Your task to perform on an android device: Look up the best rated pressure washer on Home Depot. Image 0: 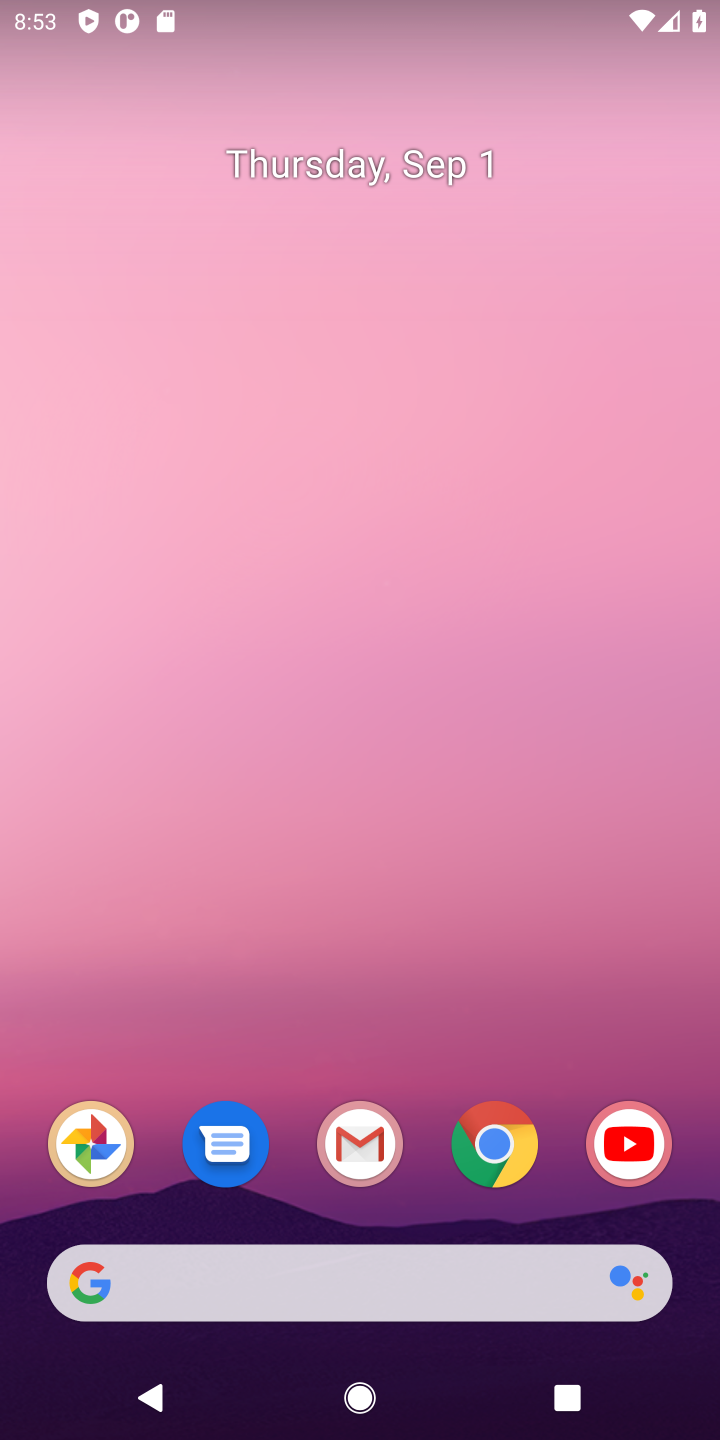
Step 0: press home button
Your task to perform on an android device: Look up the best rated pressure washer on Home Depot. Image 1: 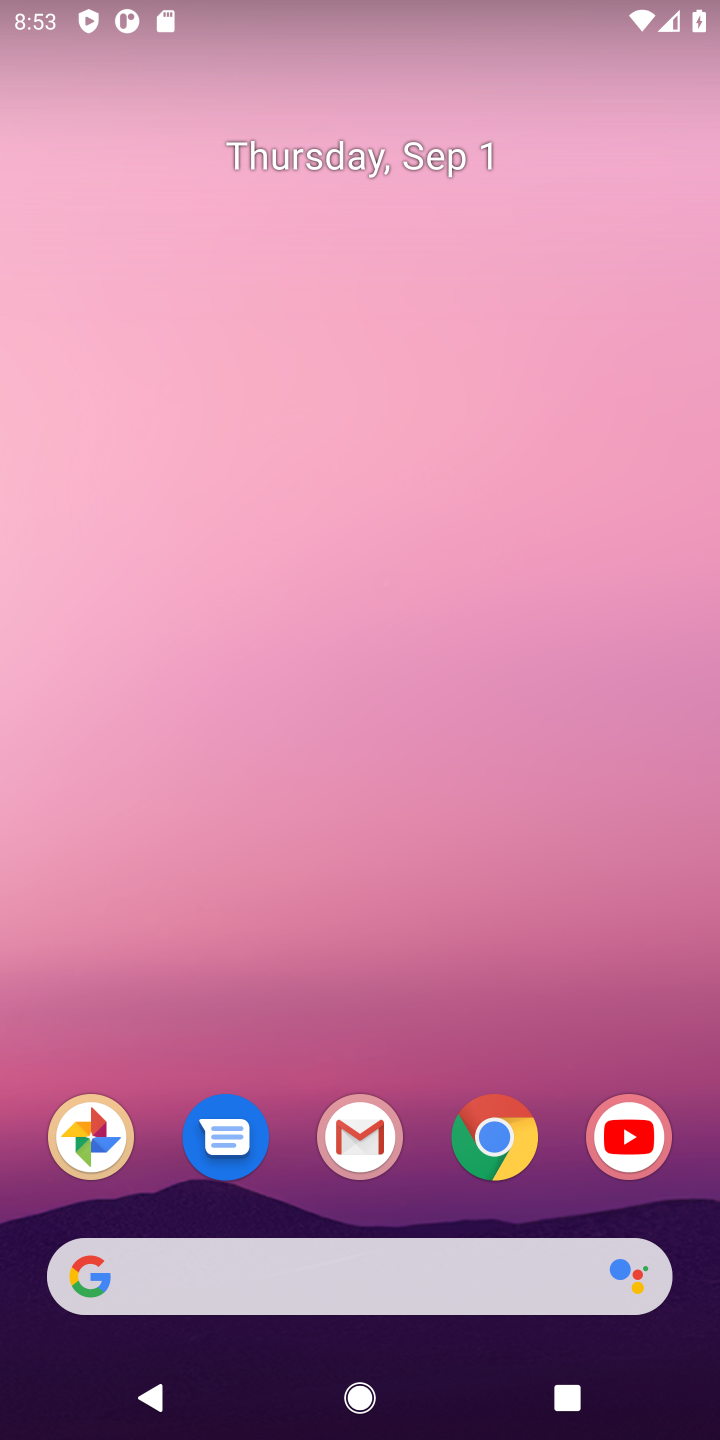
Step 1: drag from (431, 1104) to (463, 102)
Your task to perform on an android device: Look up the best rated pressure washer on Home Depot. Image 2: 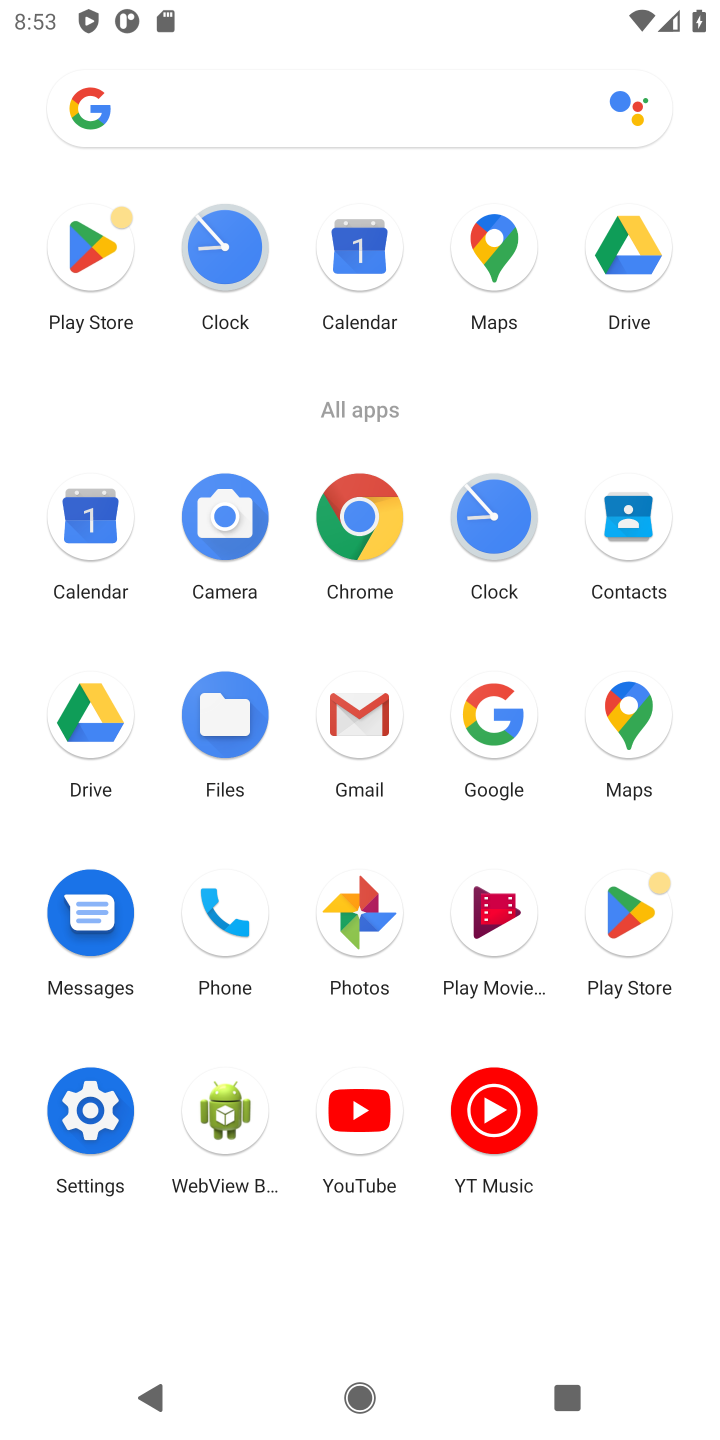
Step 2: click (346, 515)
Your task to perform on an android device: Look up the best rated pressure washer on Home Depot. Image 3: 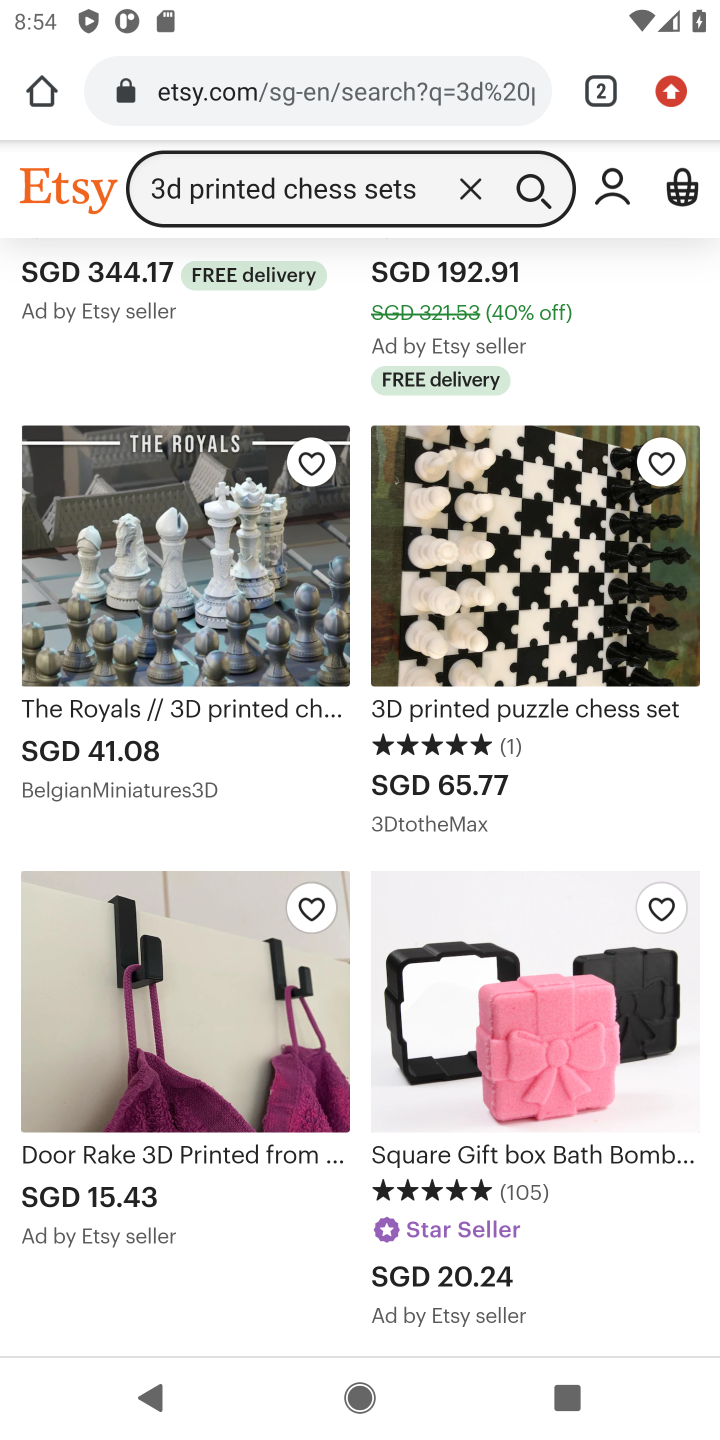
Step 3: click (331, 79)
Your task to perform on an android device: Look up the best rated pressure washer on Home Depot. Image 4: 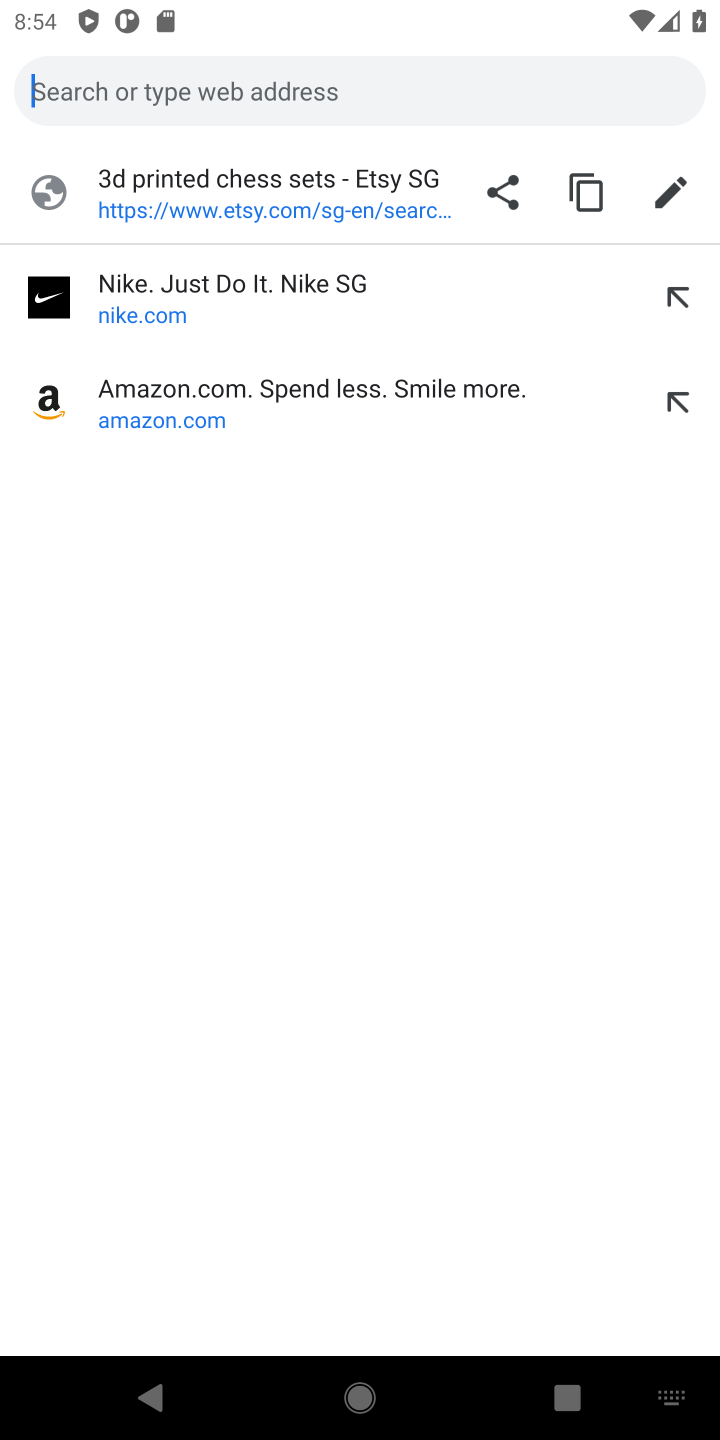
Step 4: click (322, 76)
Your task to perform on an android device: Look up the best rated pressure washer on Home Depot. Image 5: 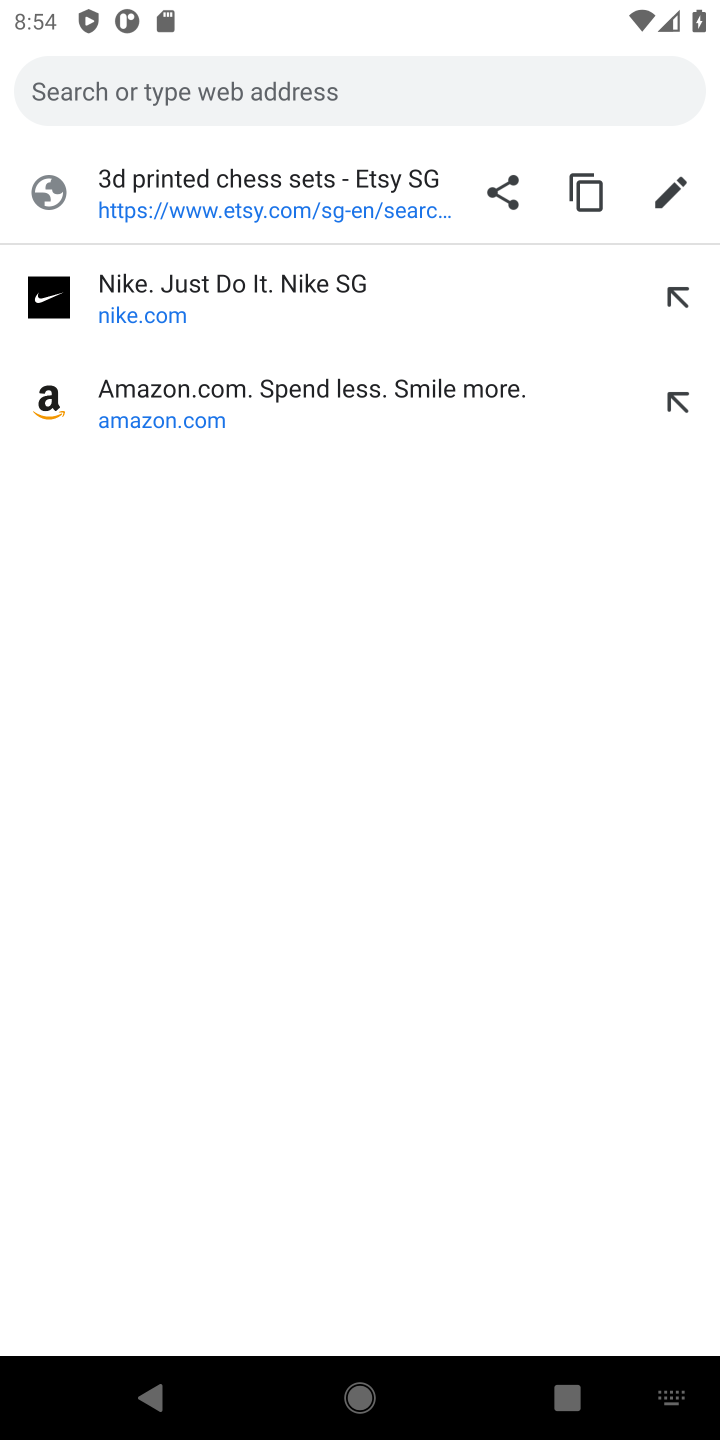
Step 5: type "Home Depot"
Your task to perform on an android device: Look up the best rated pressure washer on Home Depot. Image 6: 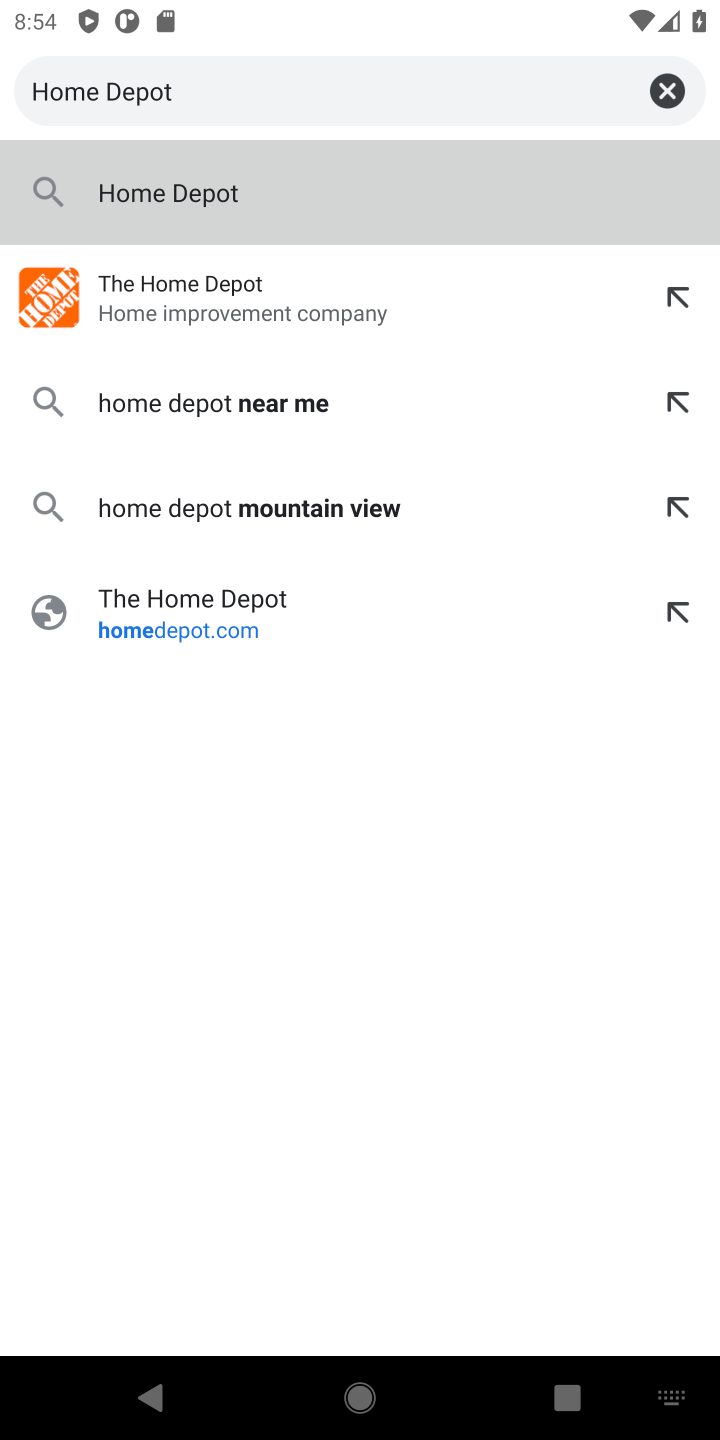
Step 6: type ""
Your task to perform on an android device: Look up the best rated pressure washer on Home Depot. Image 7: 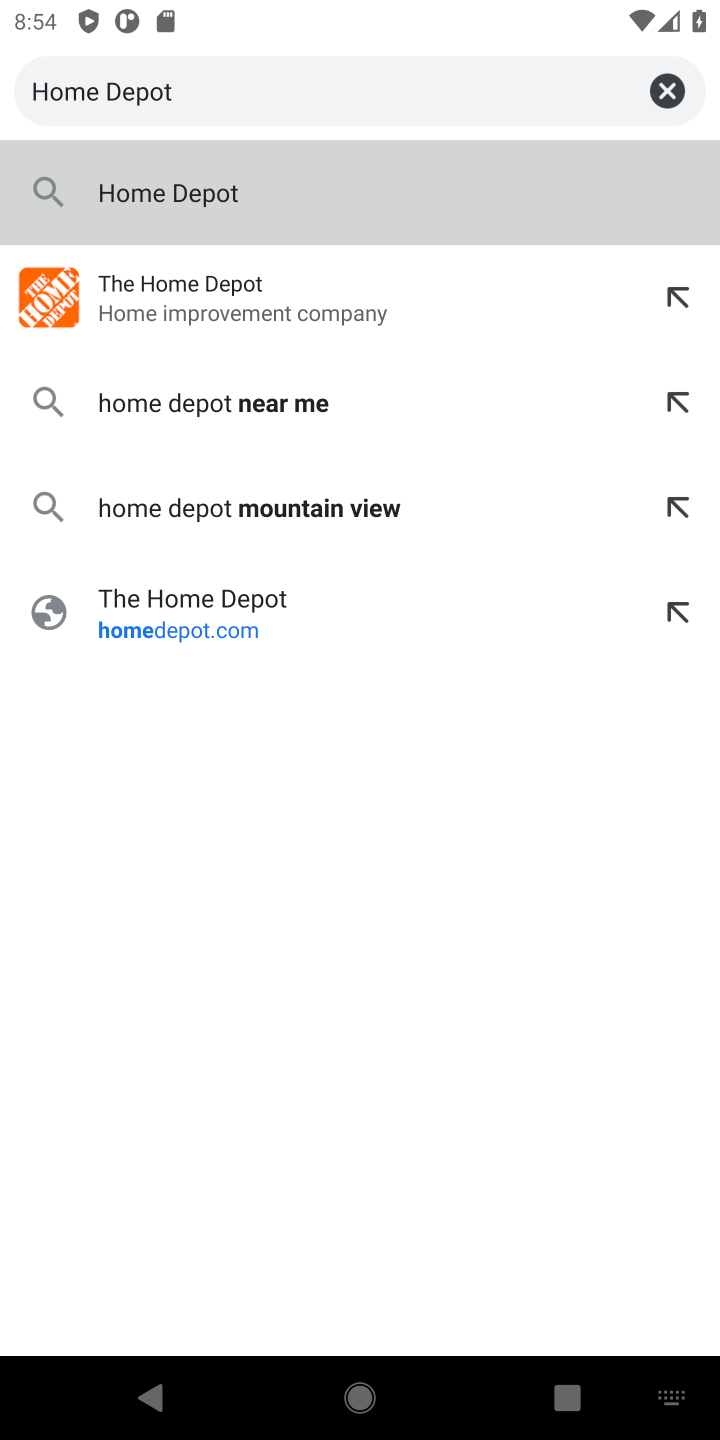
Step 7: click (390, 287)
Your task to perform on an android device: Look up the best rated pressure washer on Home Depot. Image 8: 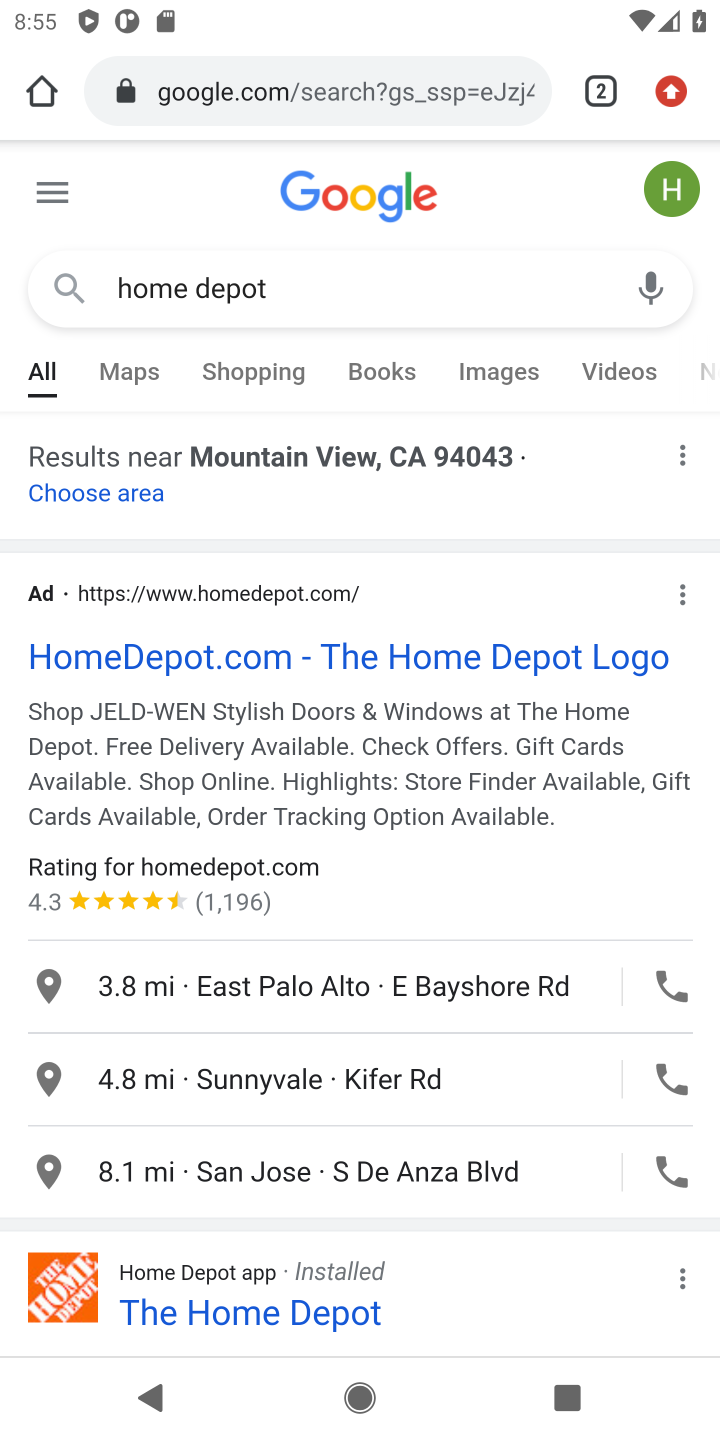
Step 8: click (167, 648)
Your task to perform on an android device: Look up the best rated pressure washer on Home Depot. Image 9: 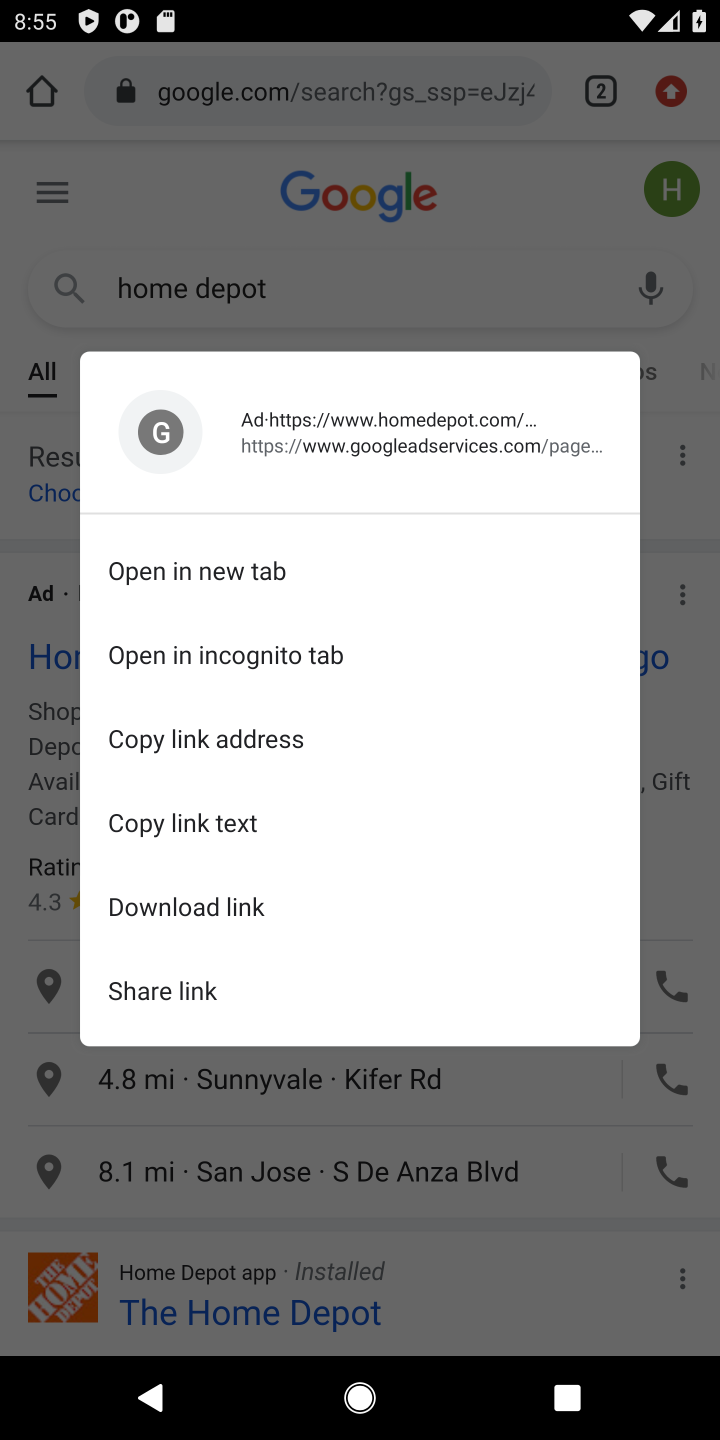
Step 9: click (146, 272)
Your task to perform on an android device: Look up the best rated pressure washer on Home Depot. Image 10: 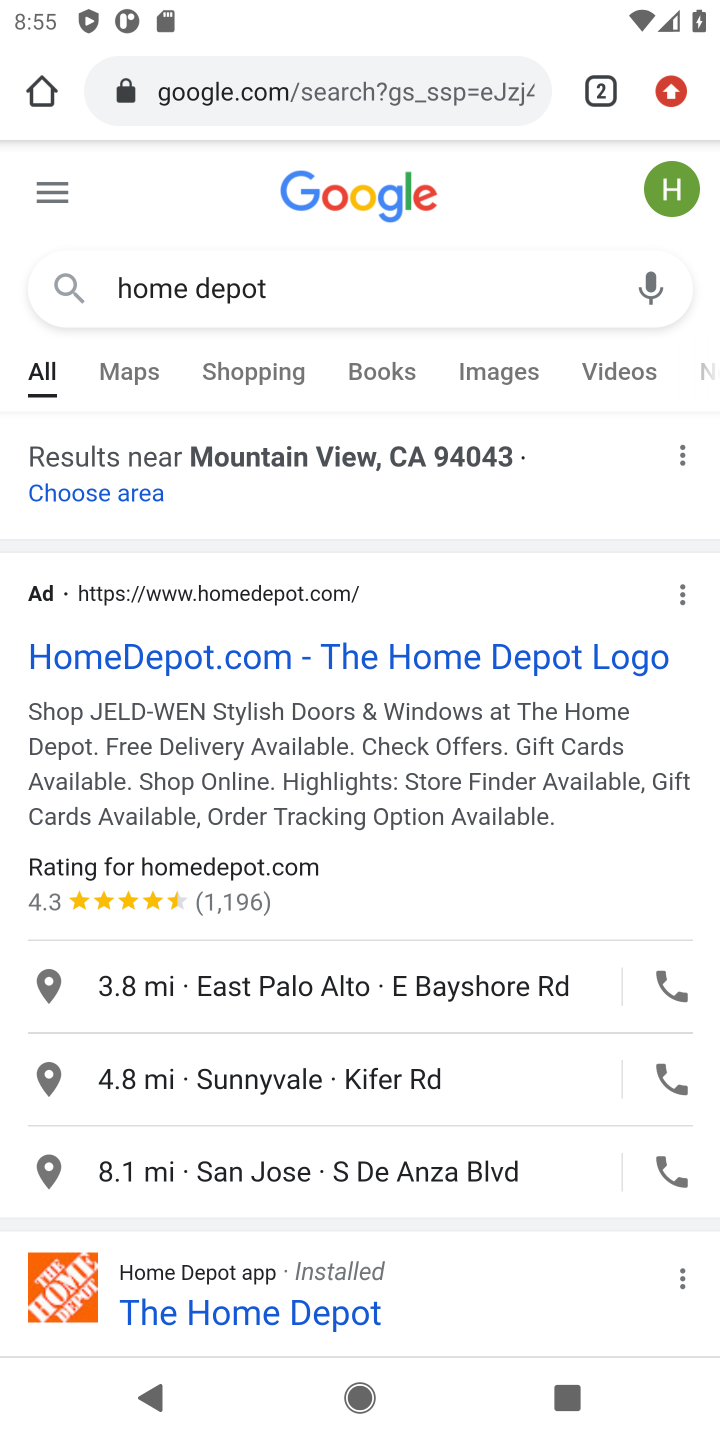
Step 10: click (212, 662)
Your task to perform on an android device: Look up the best rated pressure washer on Home Depot. Image 11: 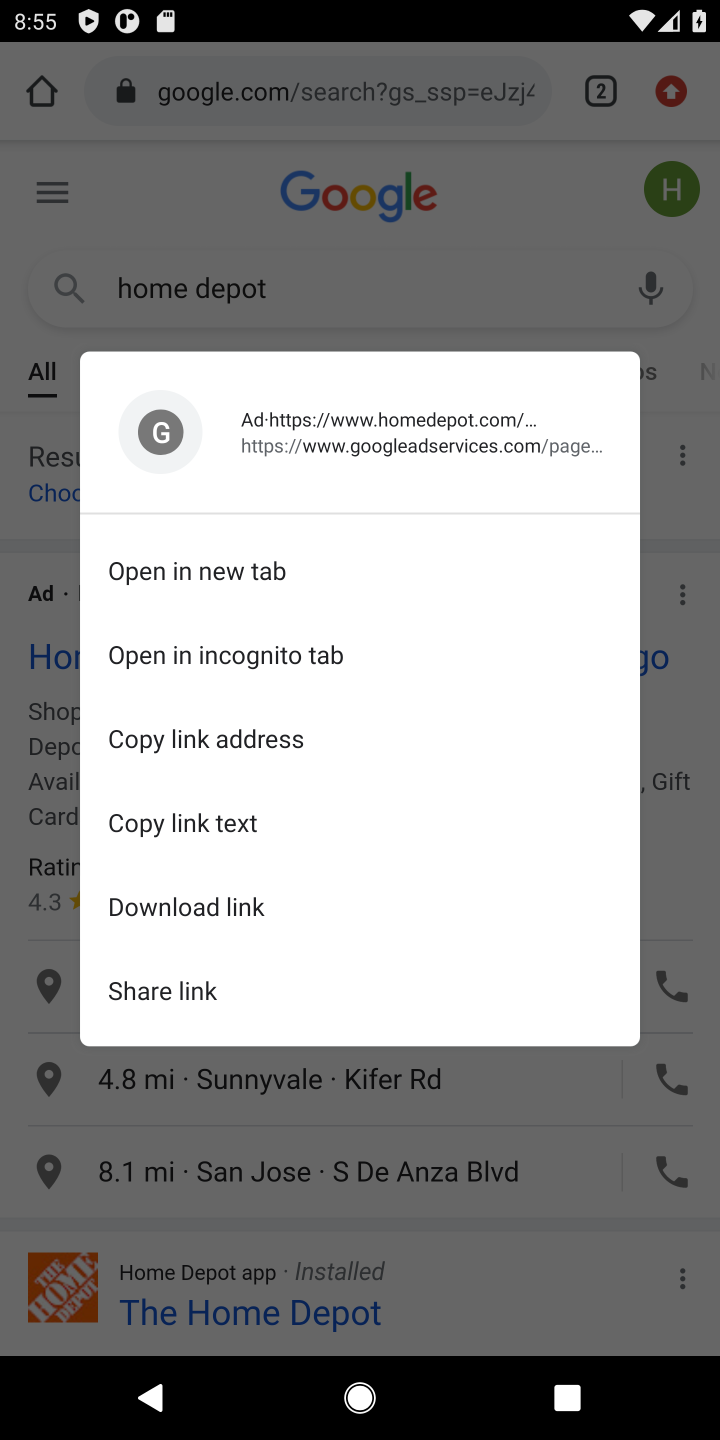
Step 11: click (42, 856)
Your task to perform on an android device: Look up the best rated pressure washer on Home Depot. Image 12: 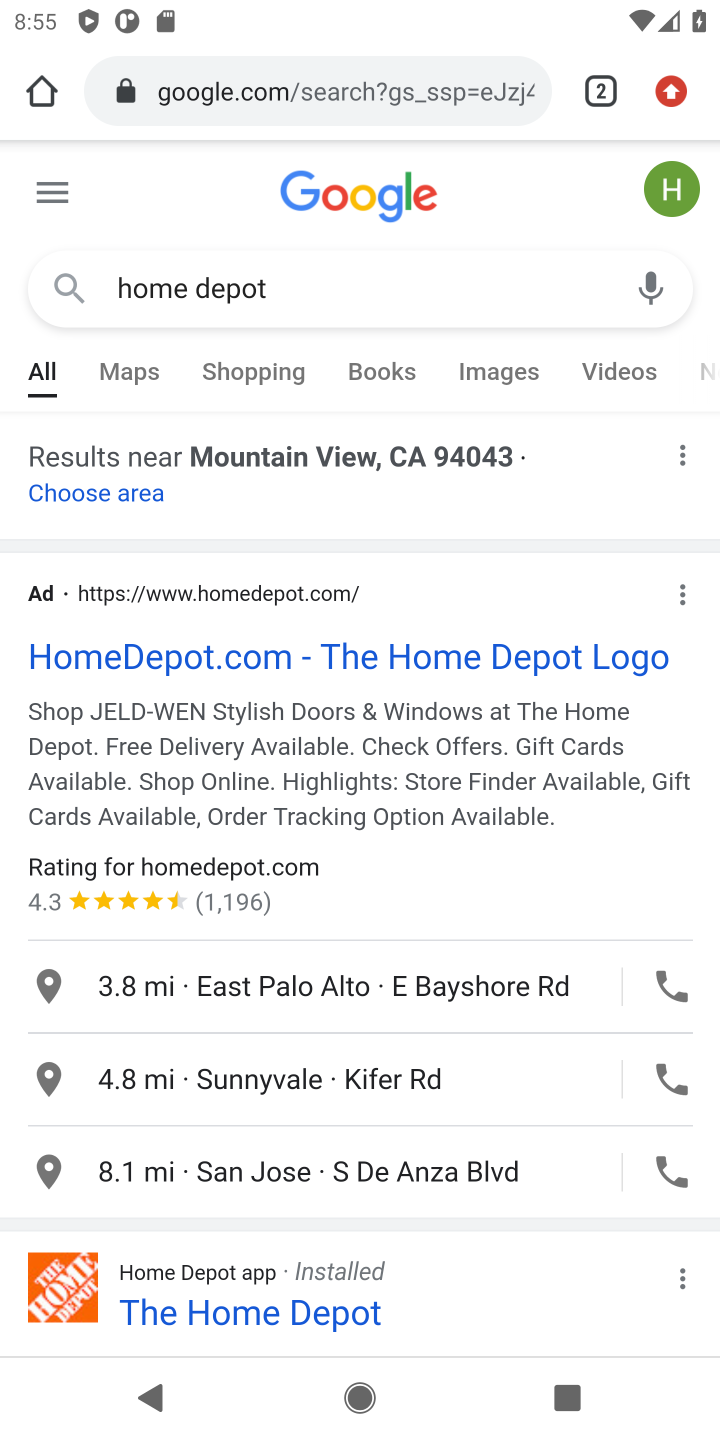
Step 12: click (527, 658)
Your task to perform on an android device: Look up the best rated pressure washer on Home Depot. Image 13: 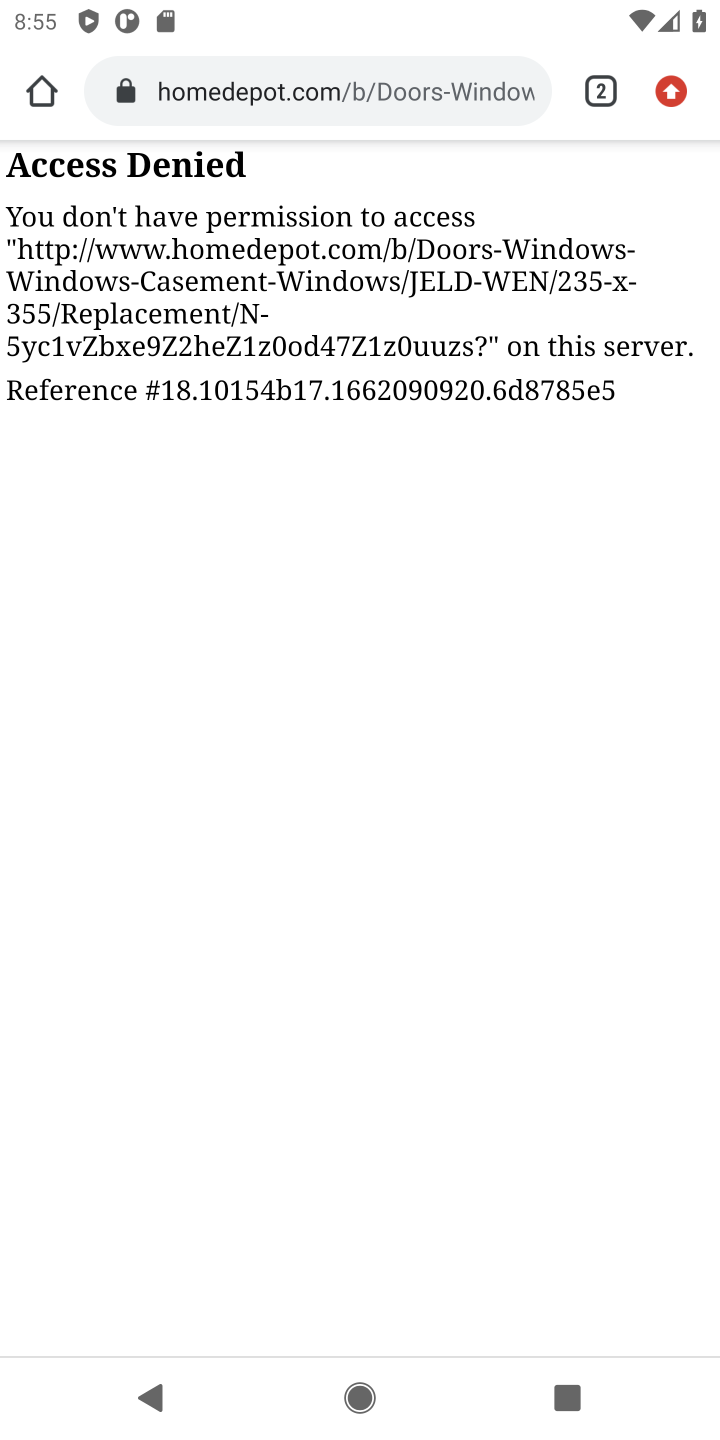
Step 13: press back button
Your task to perform on an android device: Look up the best rated pressure washer on Home Depot. Image 14: 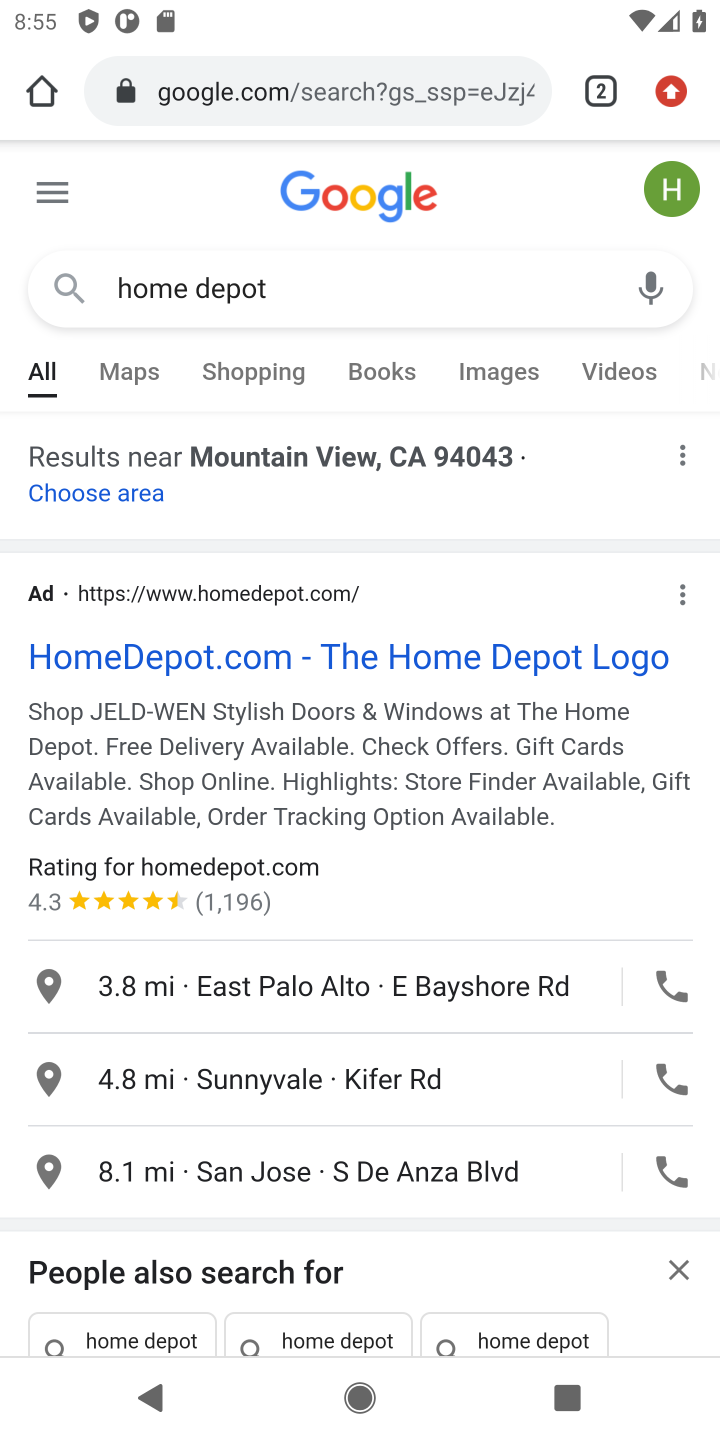
Step 14: drag from (525, 1216) to (501, 790)
Your task to perform on an android device: Look up the best rated pressure washer on Home Depot. Image 15: 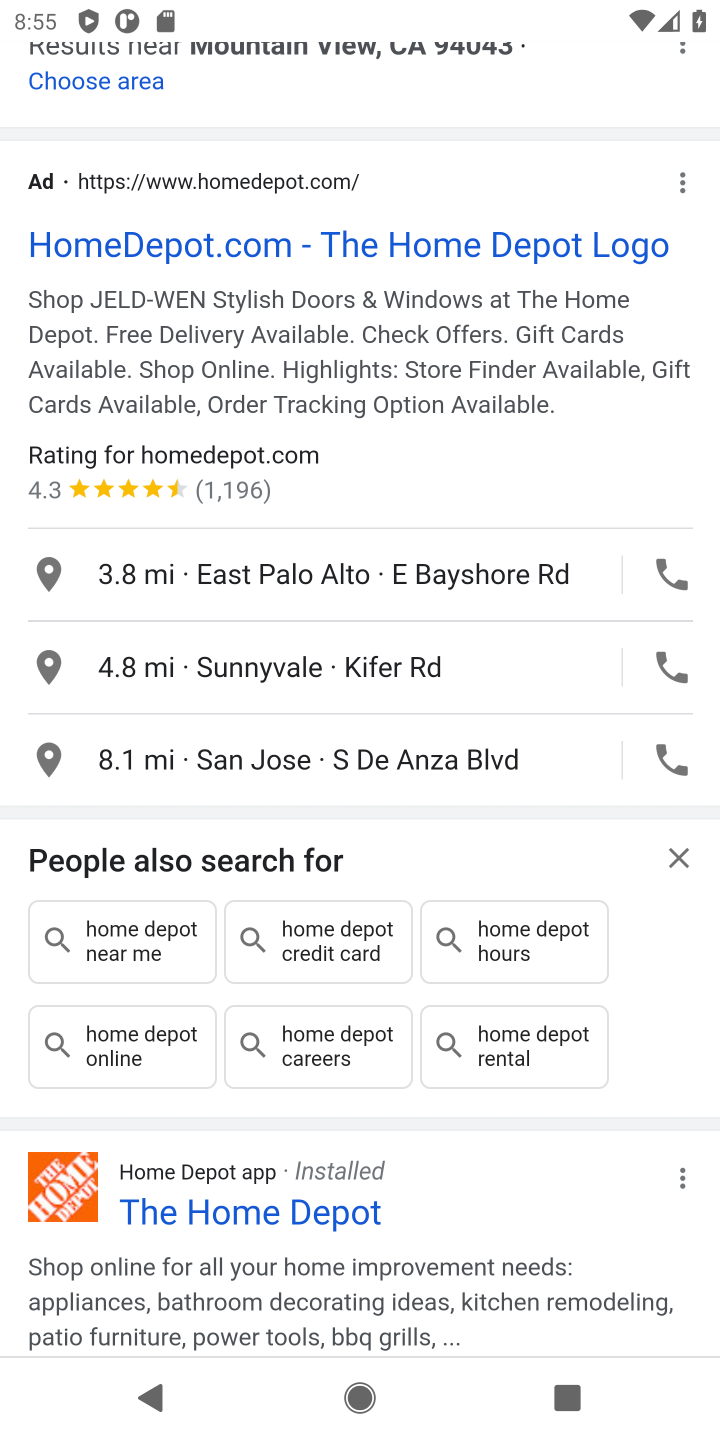
Step 15: drag from (436, 1174) to (459, 518)
Your task to perform on an android device: Look up the best rated pressure washer on Home Depot. Image 16: 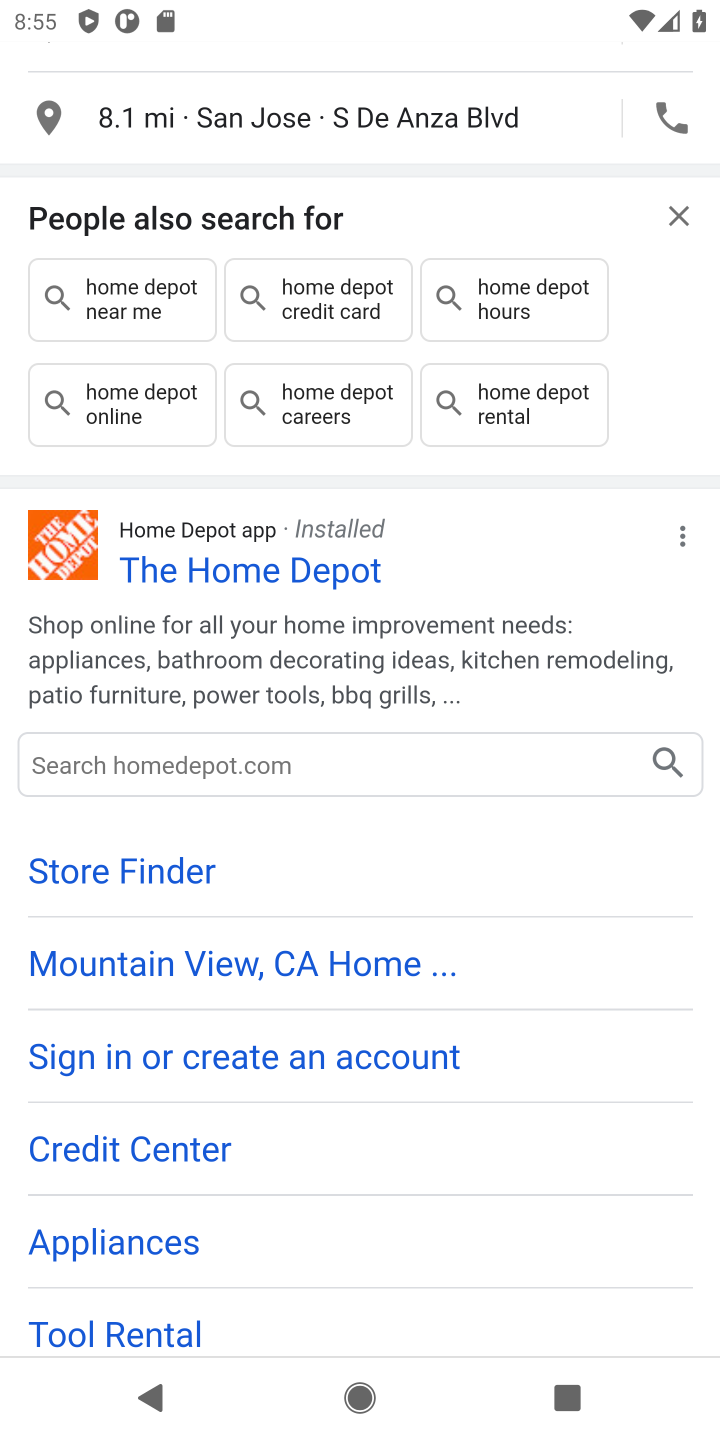
Step 16: drag from (376, 1216) to (374, 580)
Your task to perform on an android device: Look up the best rated pressure washer on Home Depot. Image 17: 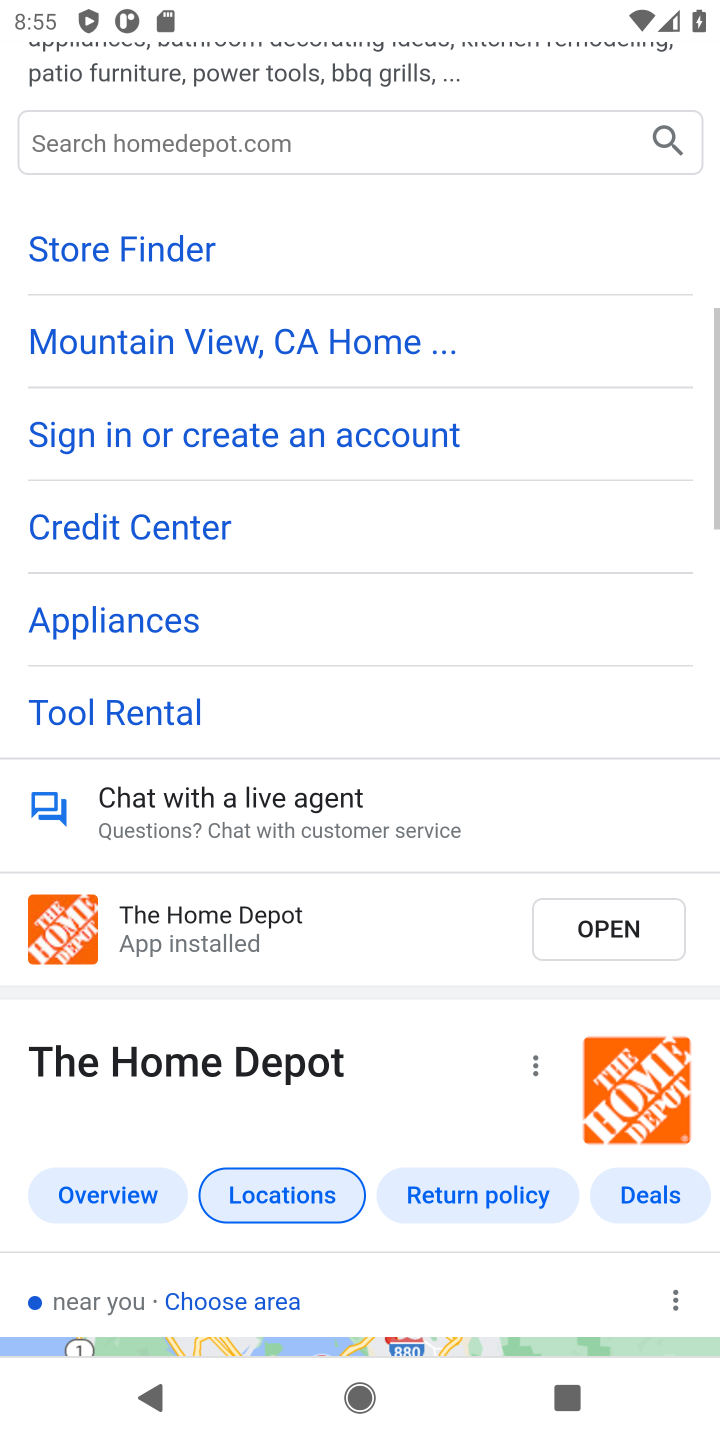
Step 17: drag from (347, 1115) to (364, 455)
Your task to perform on an android device: Look up the best rated pressure washer on Home Depot. Image 18: 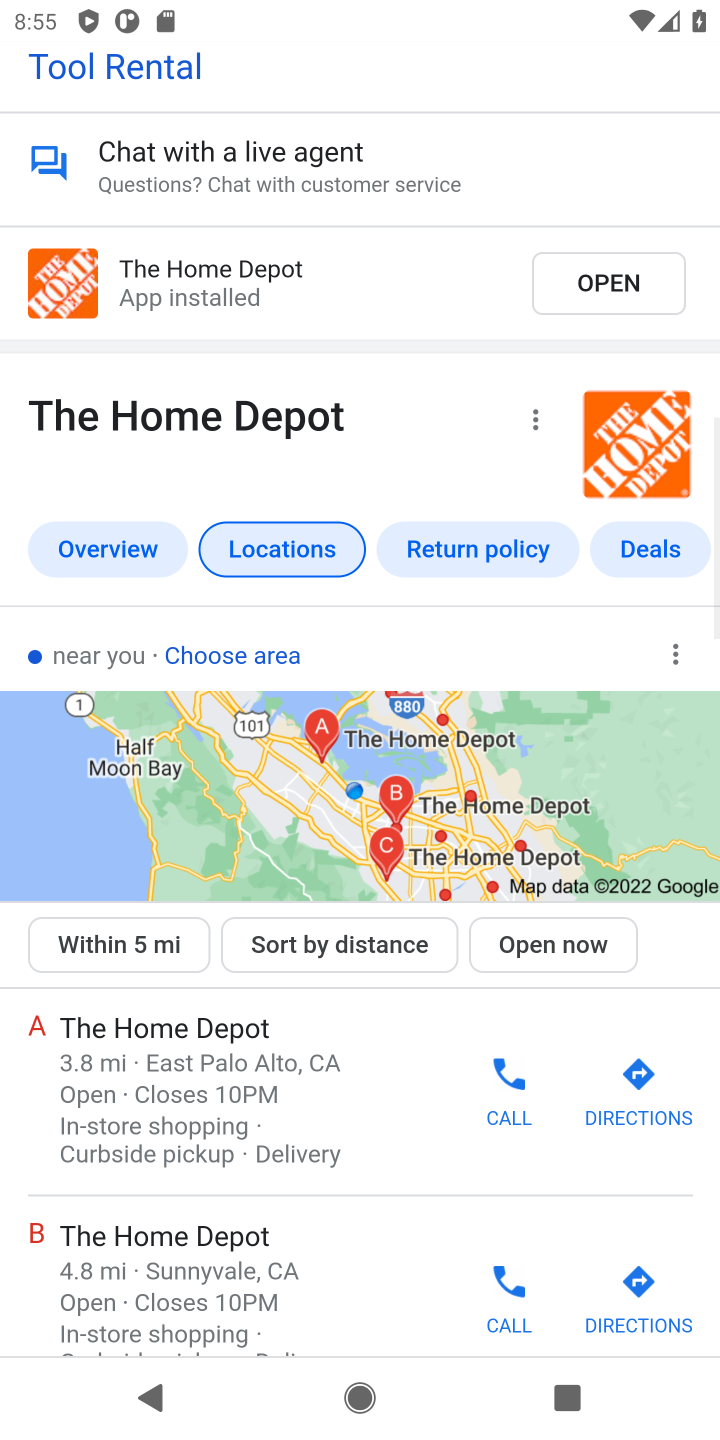
Step 18: drag from (300, 1112) to (294, 473)
Your task to perform on an android device: Look up the best rated pressure washer on Home Depot. Image 19: 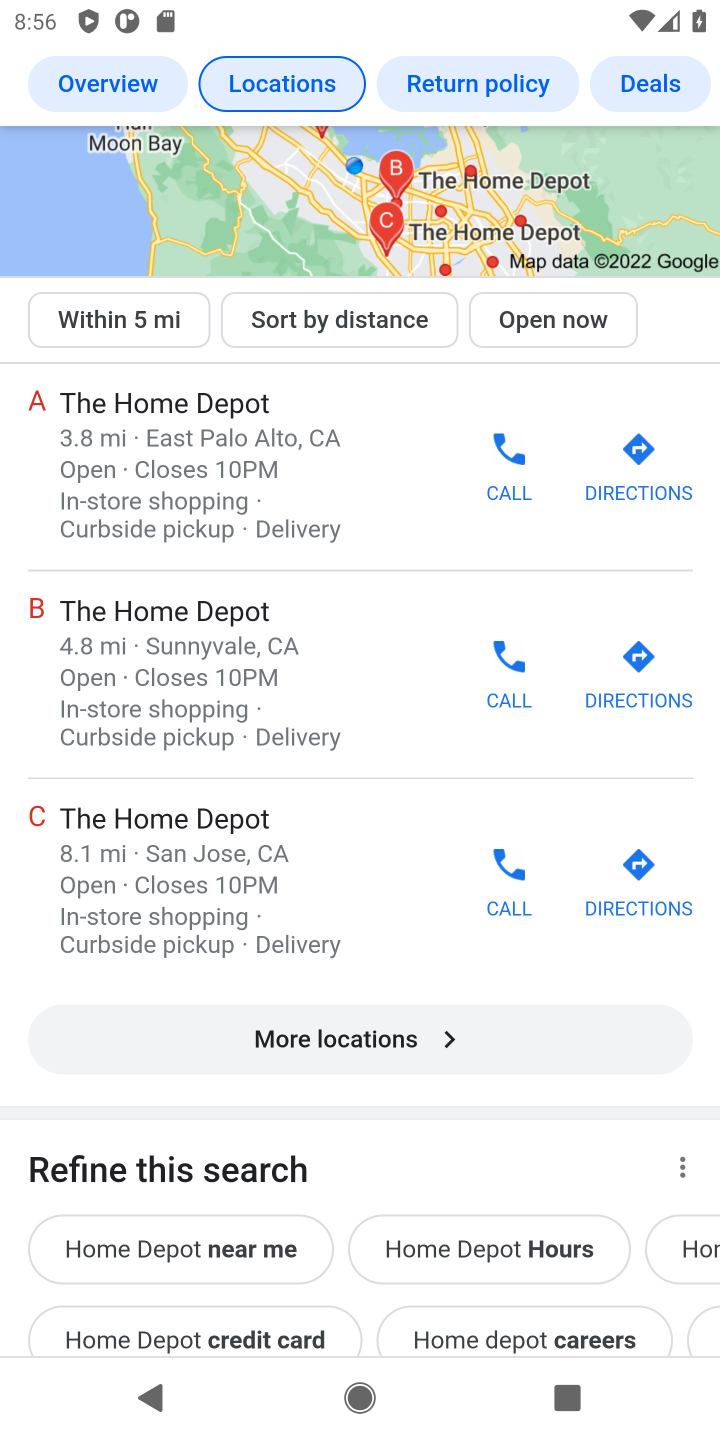
Step 19: click (108, 94)
Your task to perform on an android device: Look up the best rated pressure washer on Home Depot. Image 20: 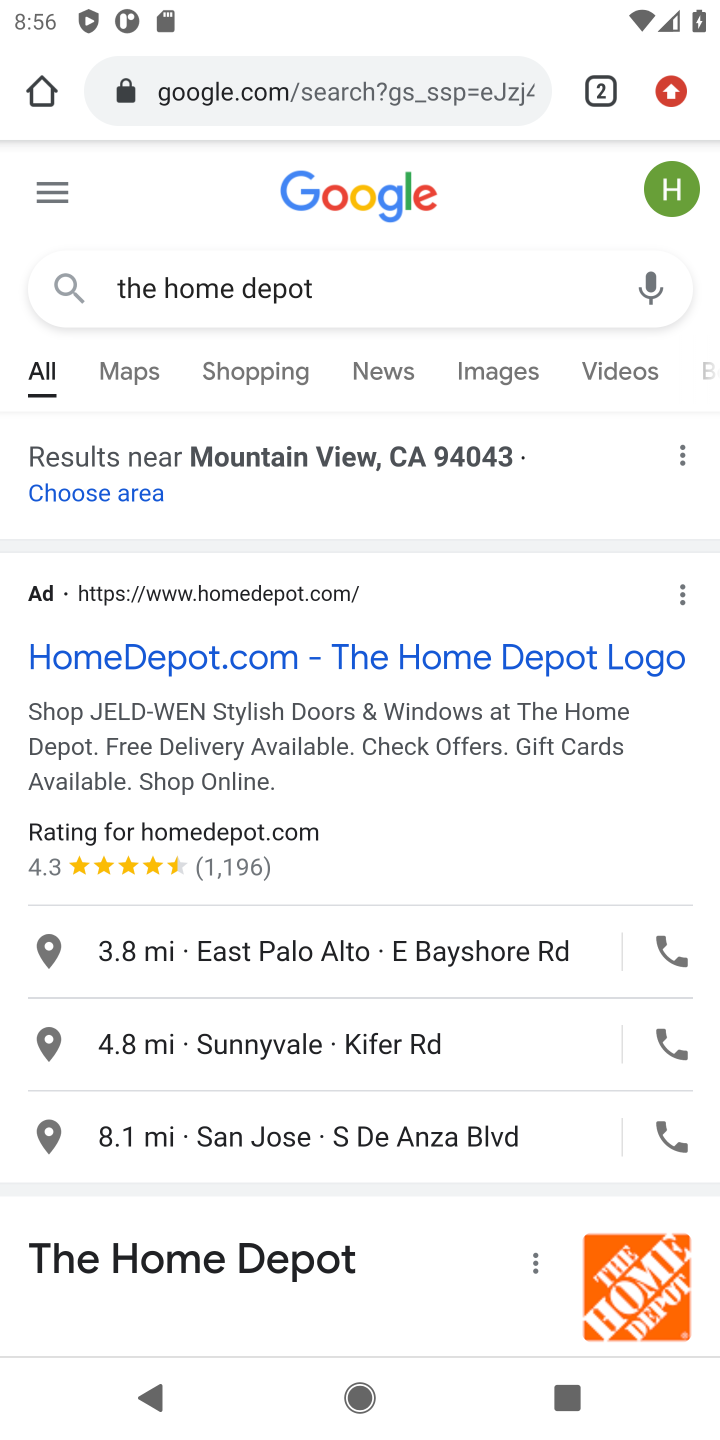
Step 20: click (234, 644)
Your task to perform on an android device: Look up the best rated pressure washer on Home Depot. Image 21: 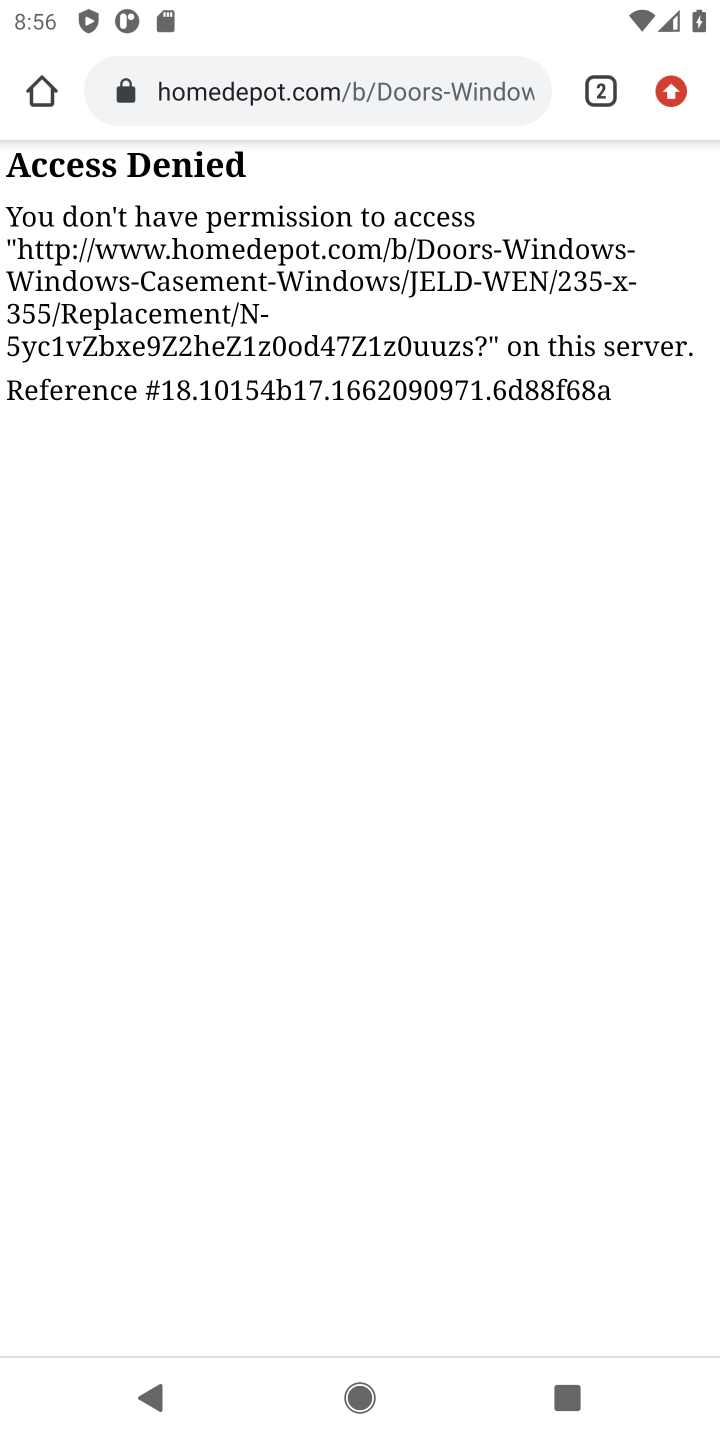
Step 21: task complete